Your task to perform on an android device: turn off airplane mode Image 0: 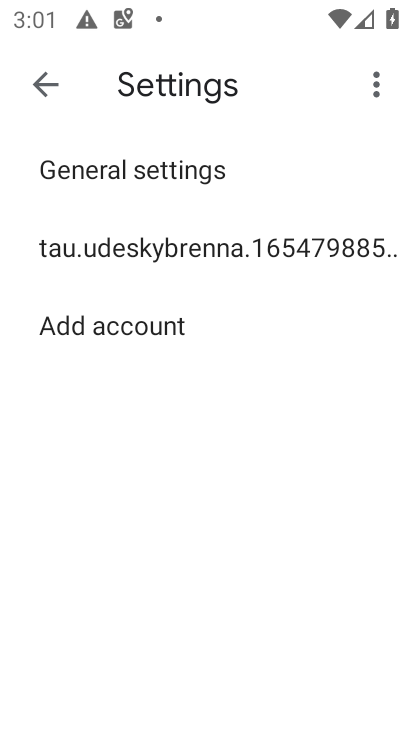
Step 0: press home button
Your task to perform on an android device: turn off airplane mode Image 1: 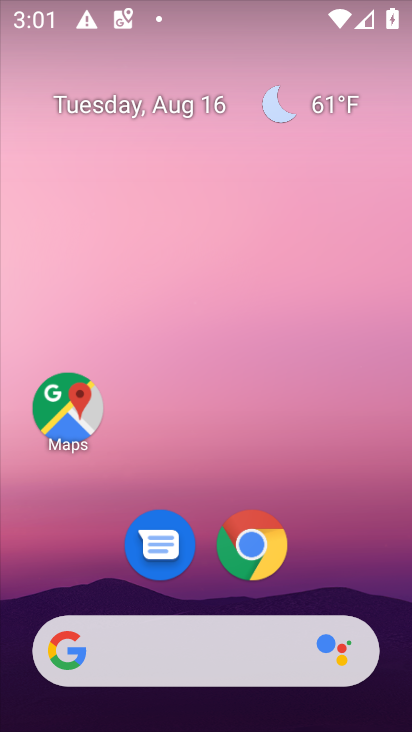
Step 1: drag from (153, 538) to (137, 160)
Your task to perform on an android device: turn off airplane mode Image 2: 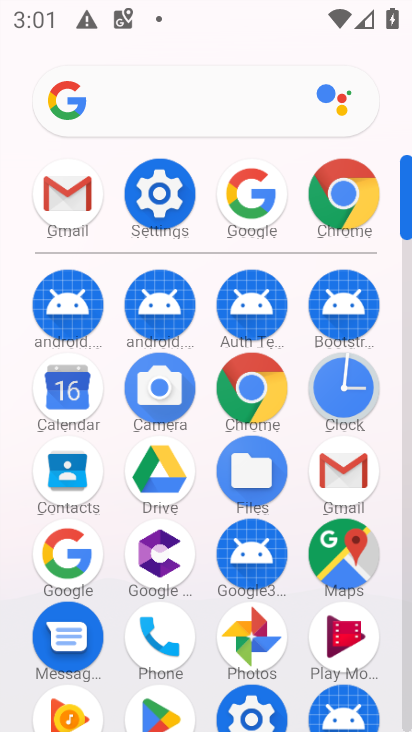
Step 2: click (157, 192)
Your task to perform on an android device: turn off airplane mode Image 3: 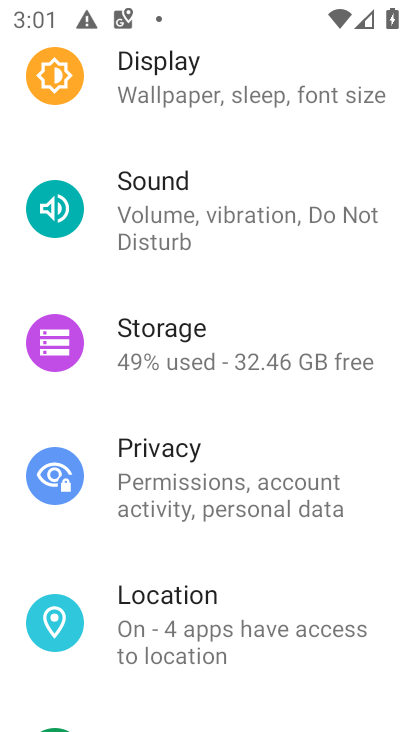
Step 3: drag from (189, 146) to (220, 510)
Your task to perform on an android device: turn off airplane mode Image 4: 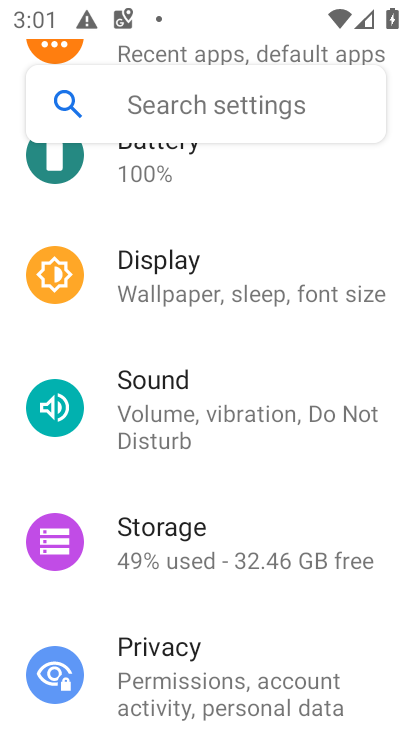
Step 4: drag from (279, 179) to (323, 523)
Your task to perform on an android device: turn off airplane mode Image 5: 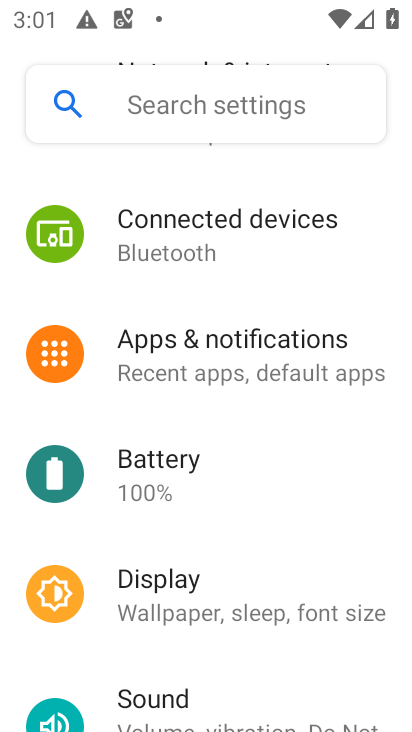
Step 5: drag from (279, 191) to (338, 579)
Your task to perform on an android device: turn off airplane mode Image 6: 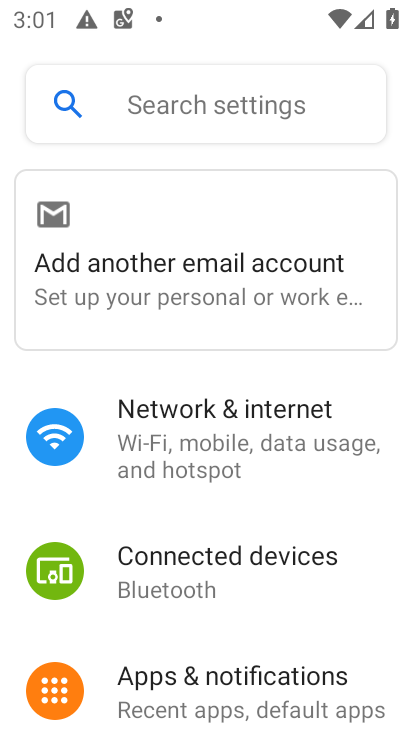
Step 6: click (210, 439)
Your task to perform on an android device: turn off airplane mode Image 7: 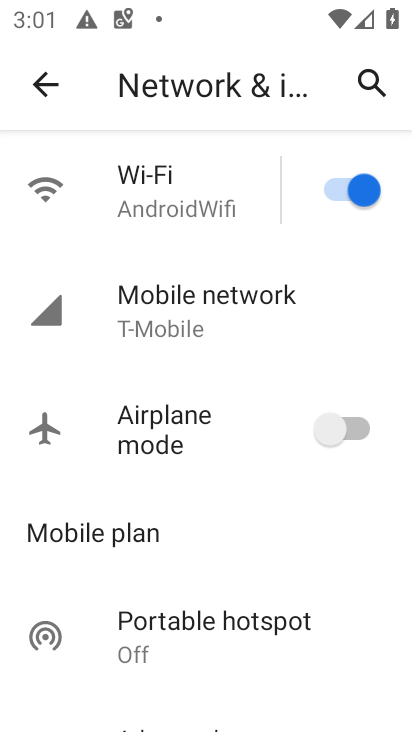
Step 7: task complete